Your task to perform on an android device: Open eBay Image 0: 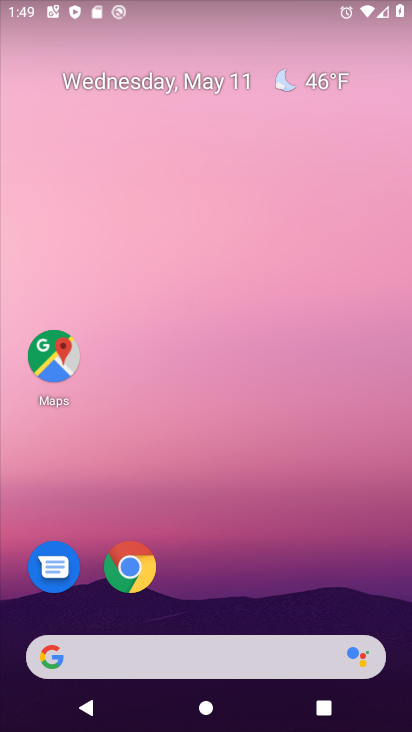
Step 0: click (148, 554)
Your task to perform on an android device: Open eBay Image 1: 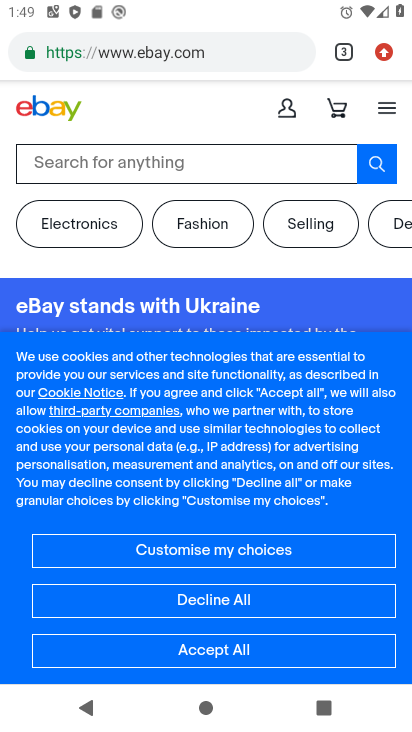
Step 1: press home button
Your task to perform on an android device: Open eBay Image 2: 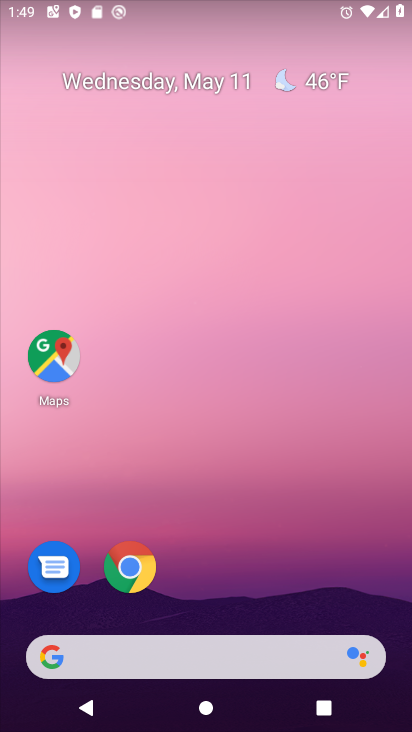
Step 2: click (150, 568)
Your task to perform on an android device: Open eBay Image 3: 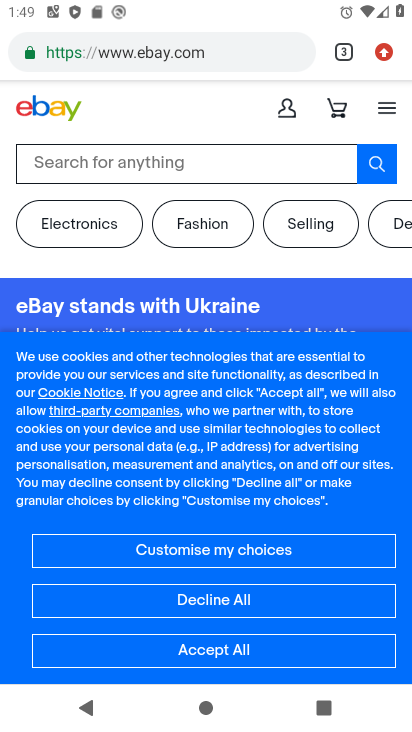
Step 3: task complete